Your task to perform on an android device: turn on the 24-hour format for clock Image 0: 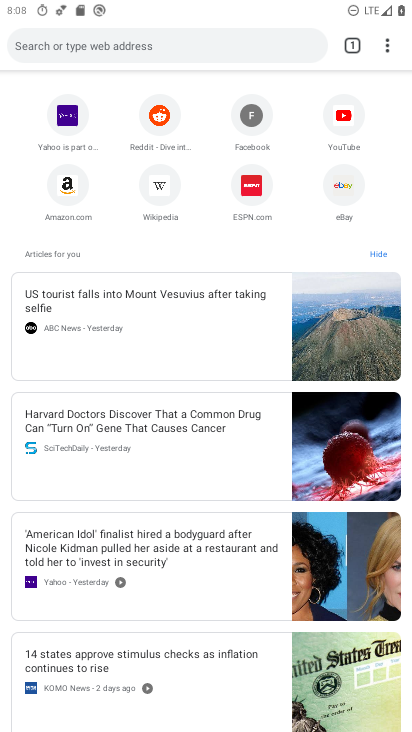
Step 0: press home button
Your task to perform on an android device: turn on the 24-hour format for clock Image 1: 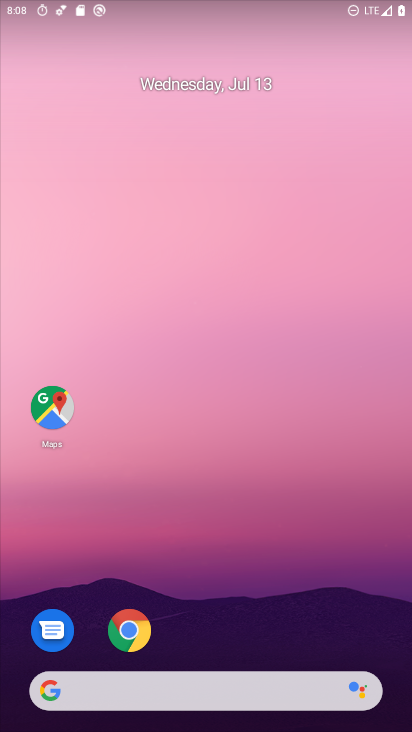
Step 1: drag from (385, 666) to (240, 16)
Your task to perform on an android device: turn on the 24-hour format for clock Image 2: 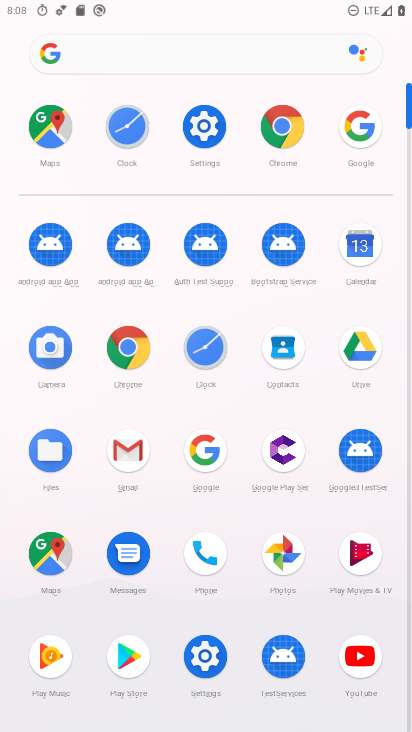
Step 2: click (201, 350)
Your task to perform on an android device: turn on the 24-hour format for clock Image 3: 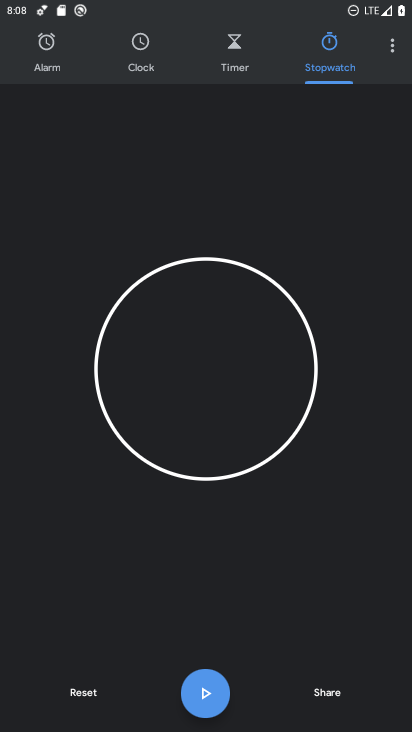
Step 3: click (389, 41)
Your task to perform on an android device: turn on the 24-hour format for clock Image 4: 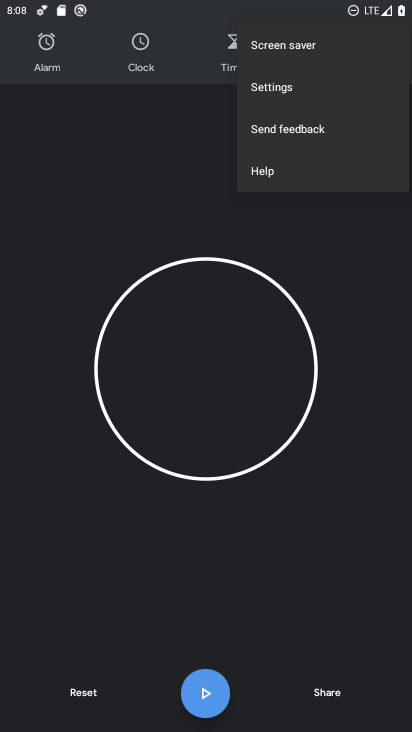
Step 4: click (275, 87)
Your task to perform on an android device: turn on the 24-hour format for clock Image 5: 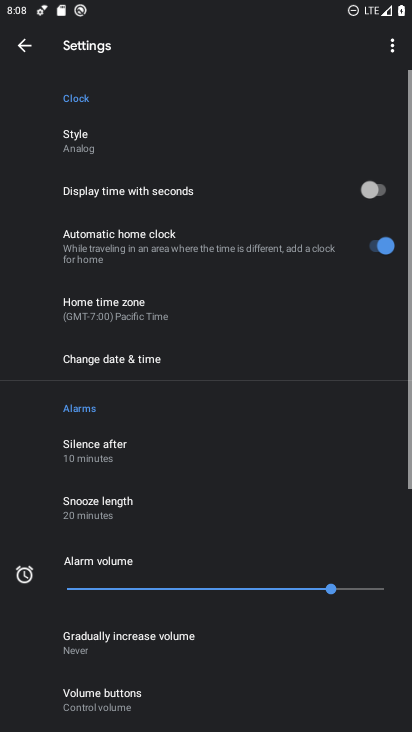
Step 5: click (134, 362)
Your task to perform on an android device: turn on the 24-hour format for clock Image 6: 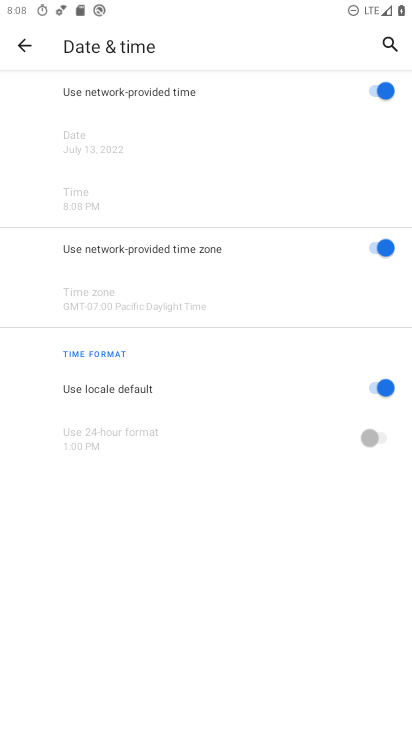
Step 6: task complete